Your task to perform on an android device: turn on data saver in the chrome app Image 0: 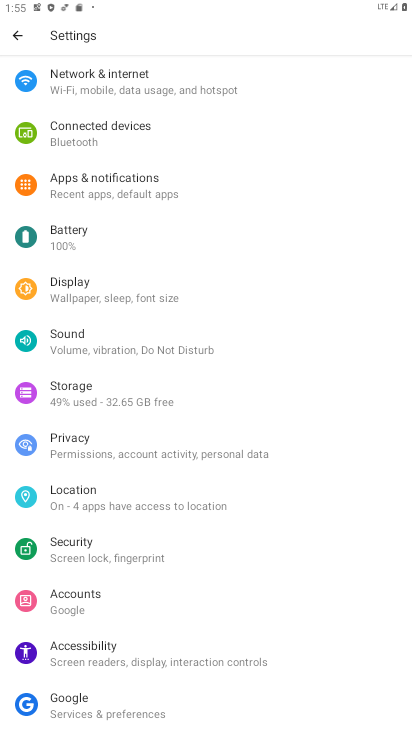
Step 0: press home button
Your task to perform on an android device: turn on data saver in the chrome app Image 1: 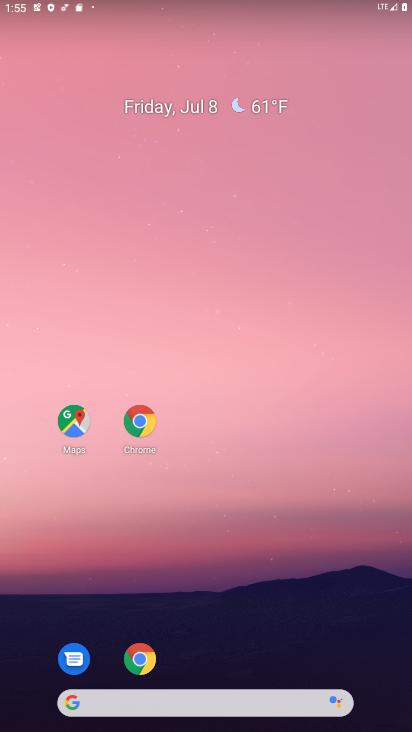
Step 1: click (142, 436)
Your task to perform on an android device: turn on data saver in the chrome app Image 2: 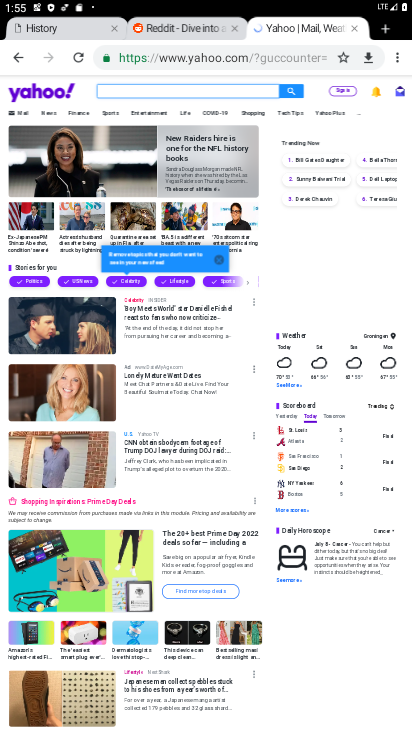
Step 2: click (400, 59)
Your task to perform on an android device: turn on data saver in the chrome app Image 3: 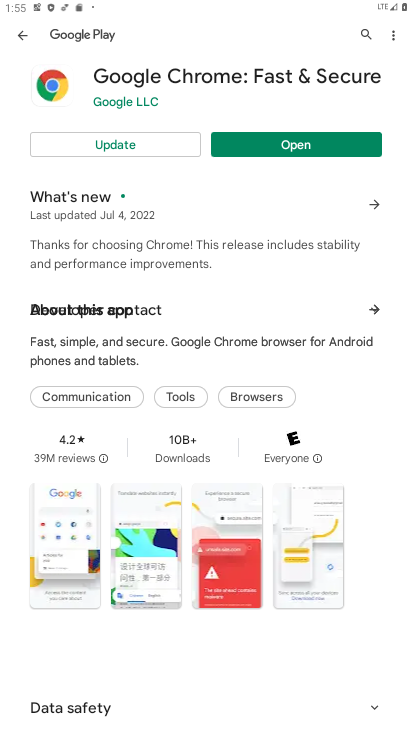
Step 3: press back button
Your task to perform on an android device: turn on data saver in the chrome app Image 4: 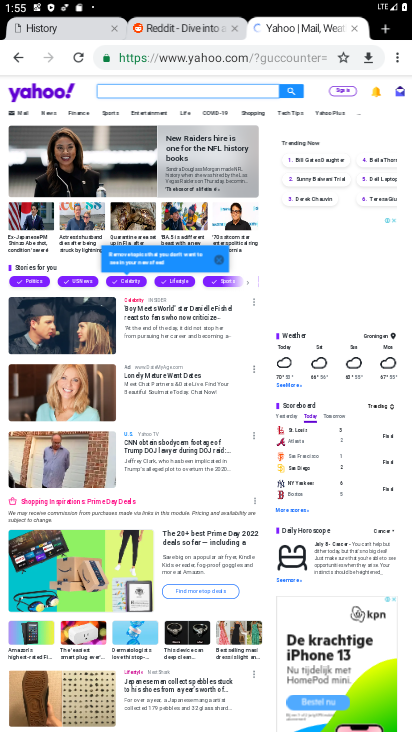
Step 4: click (395, 61)
Your task to perform on an android device: turn on data saver in the chrome app Image 5: 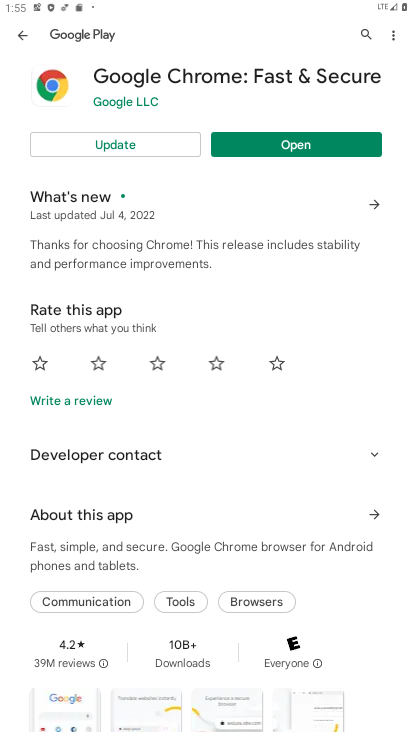
Step 5: press back button
Your task to perform on an android device: turn on data saver in the chrome app Image 6: 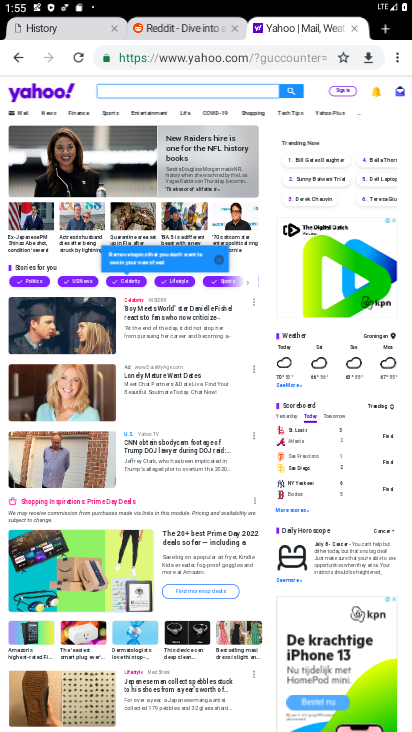
Step 6: drag from (399, 55) to (271, 422)
Your task to perform on an android device: turn on data saver in the chrome app Image 7: 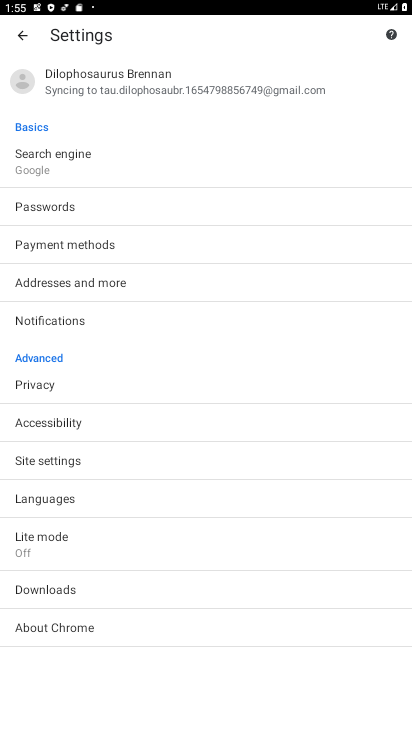
Step 7: click (69, 533)
Your task to perform on an android device: turn on data saver in the chrome app Image 8: 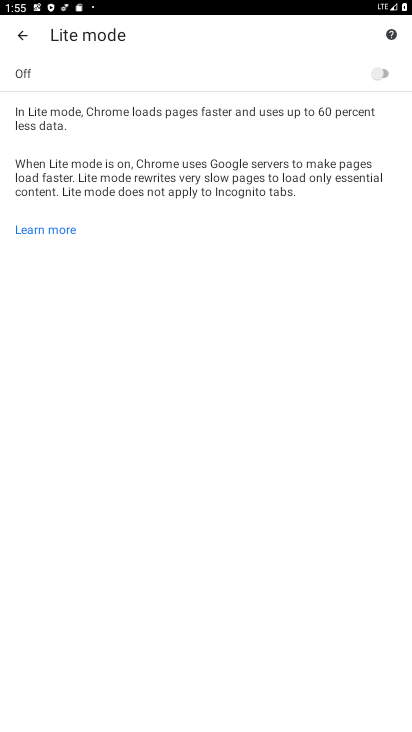
Step 8: click (379, 71)
Your task to perform on an android device: turn on data saver in the chrome app Image 9: 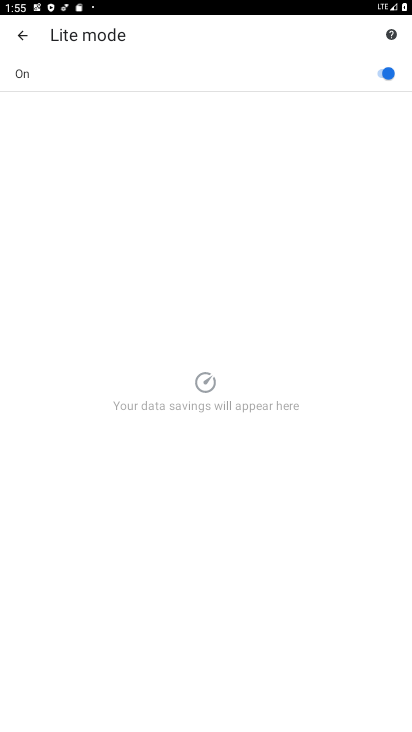
Step 9: task complete